Your task to perform on an android device: Show me recent news Image 0: 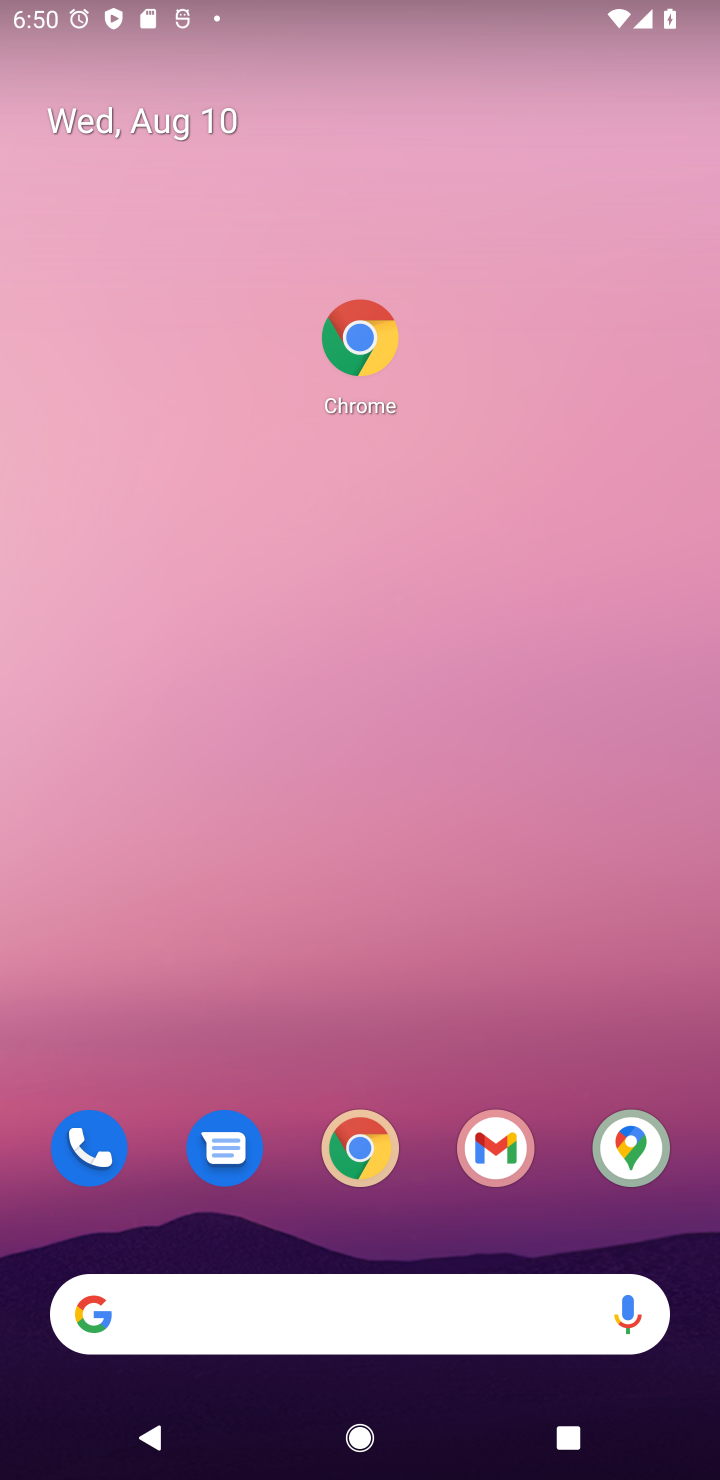
Step 0: click (275, 1311)
Your task to perform on an android device: Show me recent news Image 1: 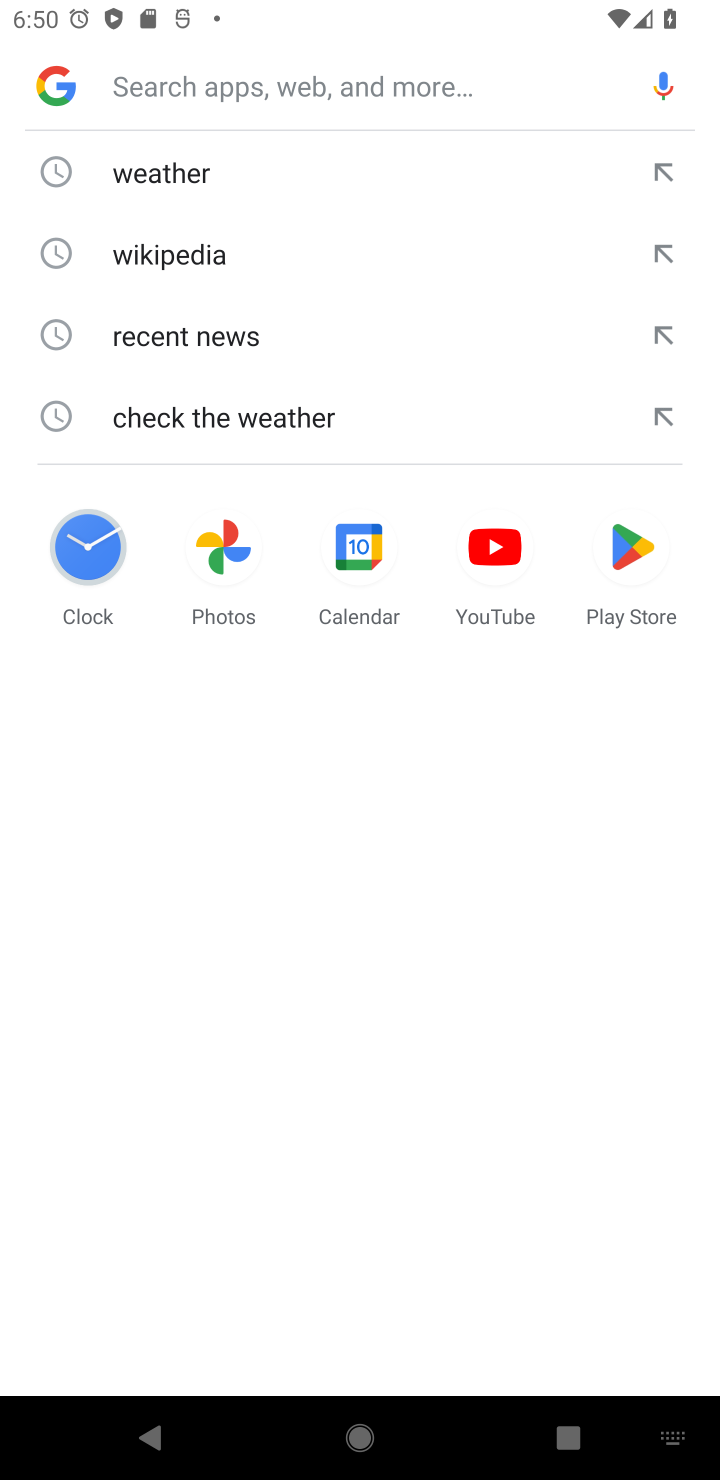
Step 1: click (158, 343)
Your task to perform on an android device: Show me recent news Image 2: 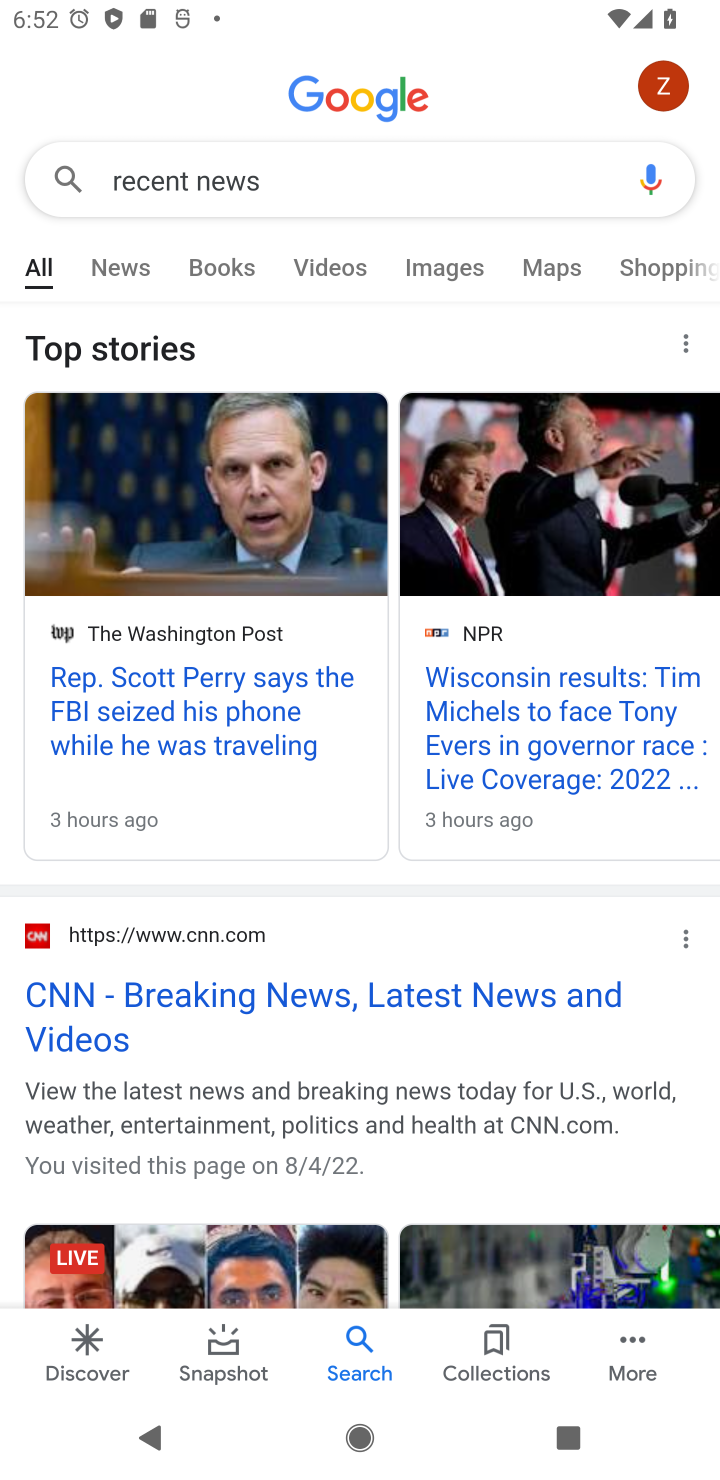
Step 2: task complete